Your task to perform on an android device: Open settings Image 0: 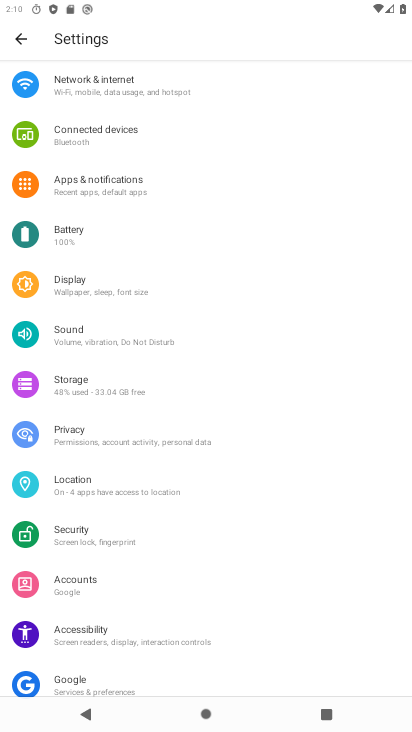
Step 0: drag from (214, 518) to (209, 287)
Your task to perform on an android device: Open settings Image 1: 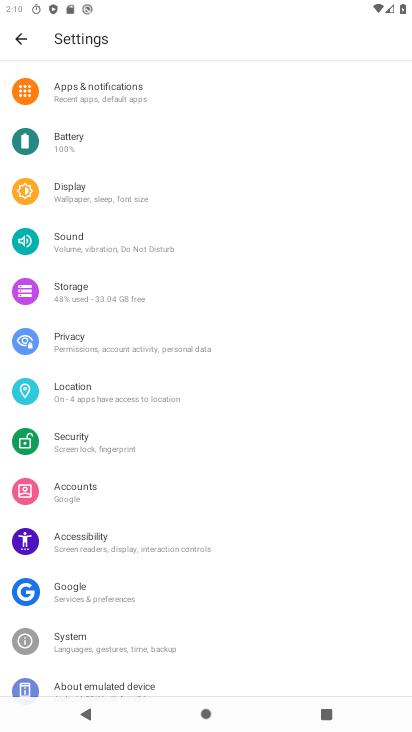
Step 1: task complete